Your task to perform on an android device: Open my contact list Image 0: 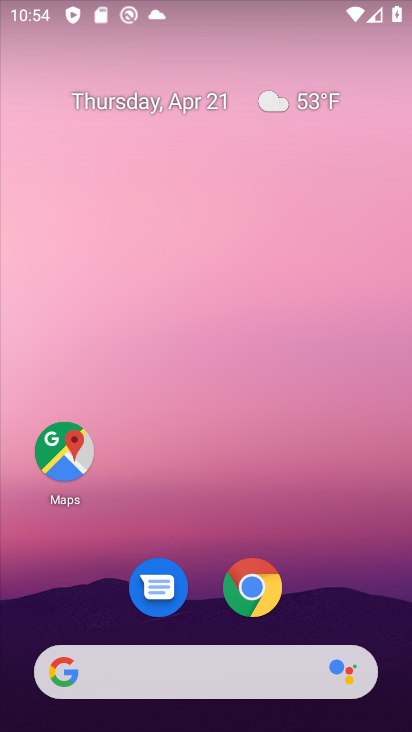
Step 0: click (231, 123)
Your task to perform on an android device: Open my contact list Image 1: 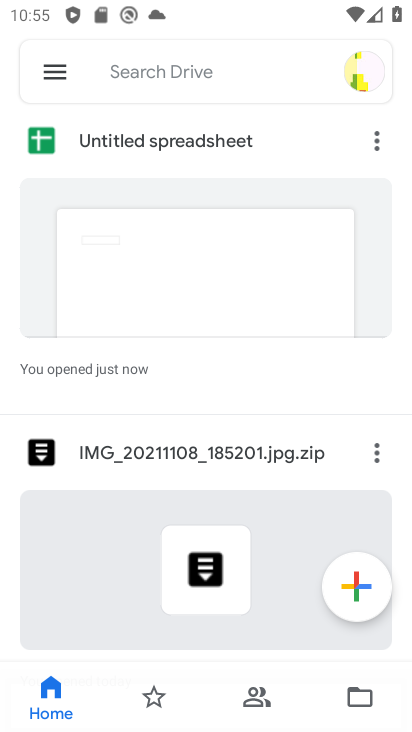
Step 1: press back button
Your task to perform on an android device: Open my contact list Image 2: 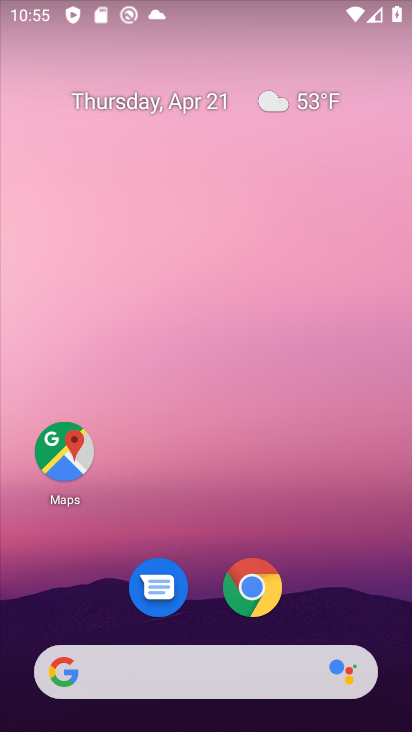
Step 2: drag from (223, 522) to (240, 125)
Your task to perform on an android device: Open my contact list Image 3: 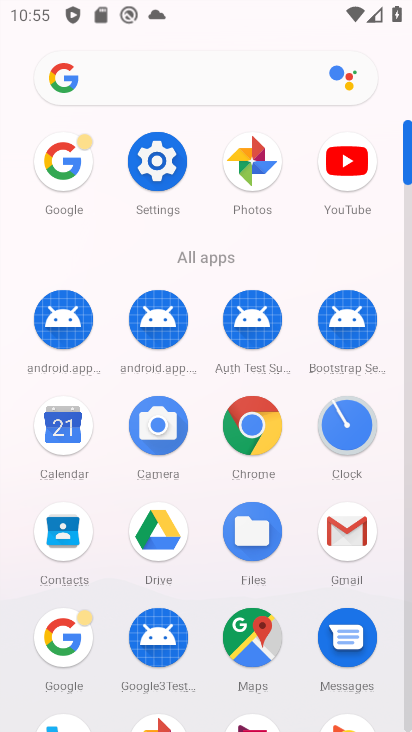
Step 3: click (68, 524)
Your task to perform on an android device: Open my contact list Image 4: 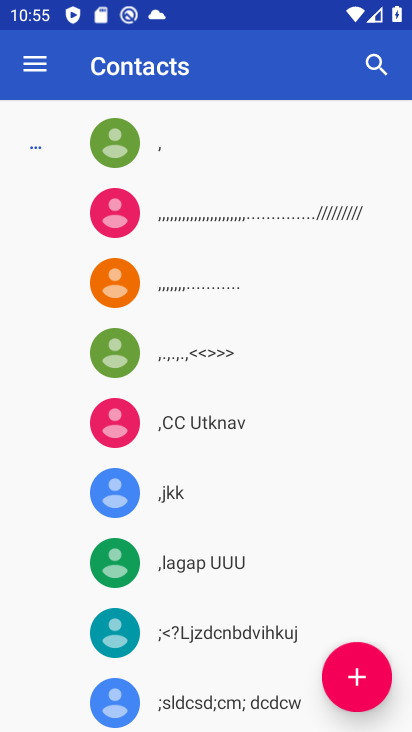
Step 4: click (359, 676)
Your task to perform on an android device: Open my contact list Image 5: 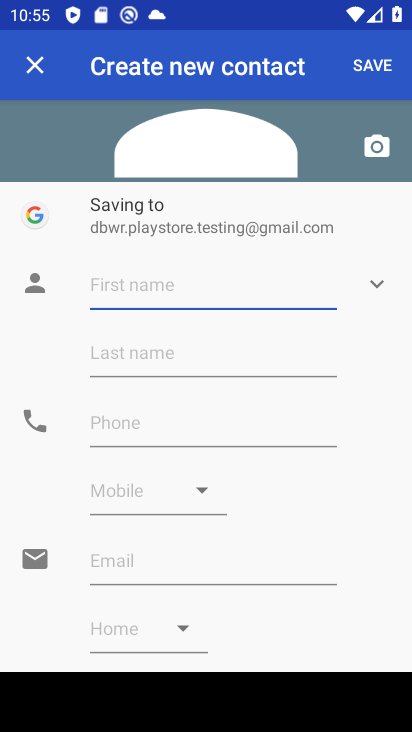
Step 5: click (133, 291)
Your task to perform on an android device: Open my contact list Image 6: 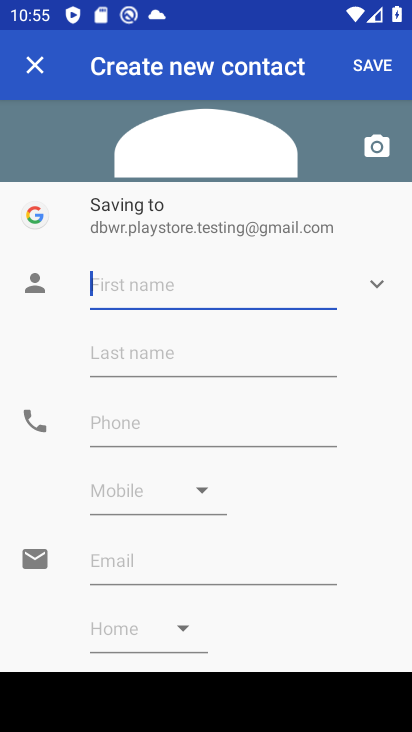
Step 6: type "hhb"
Your task to perform on an android device: Open my contact list Image 7: 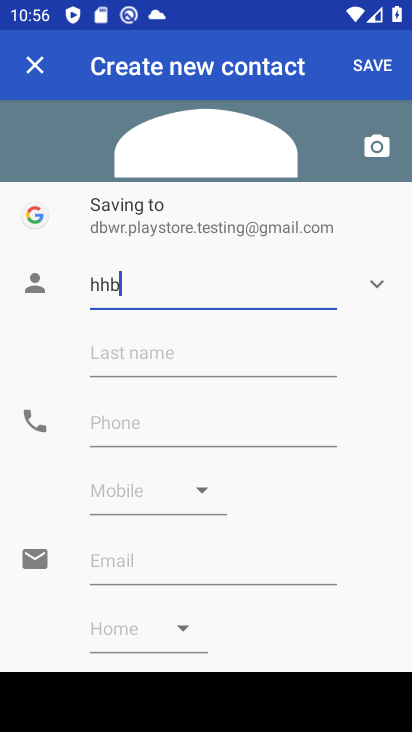
Step 7: click (37, 60)
Your task to perform on an android device: Open my contact list Image 8: 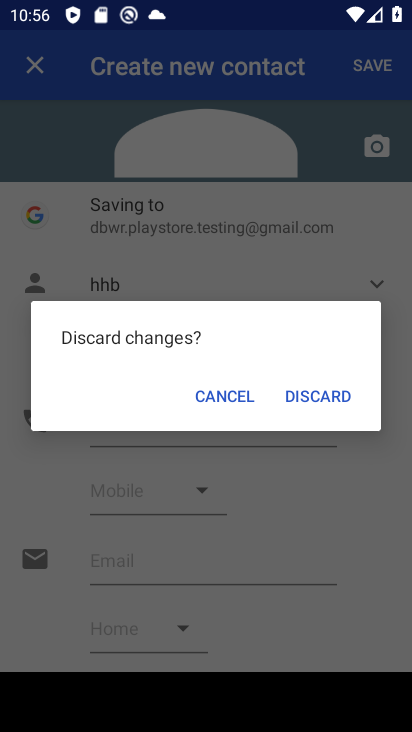
Step 8: click (316, 396)
Your task to perform on an android device: Open my contact list Image 9: 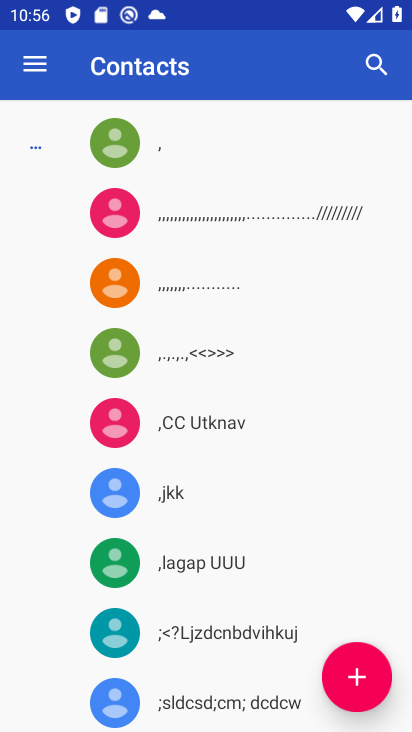
Step 9: task complete